Your task to perform on an android device: make emails show in primary in the gmail app Image 0: 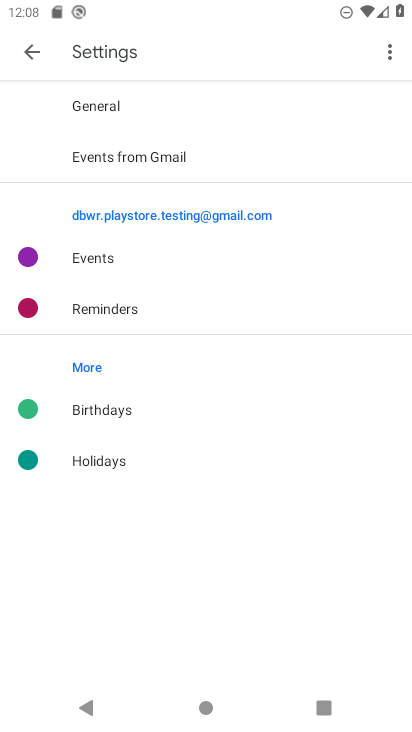
Step 0: press home button
Your task to perform on an android device: make emails show in primary in the gmail app Image 1: 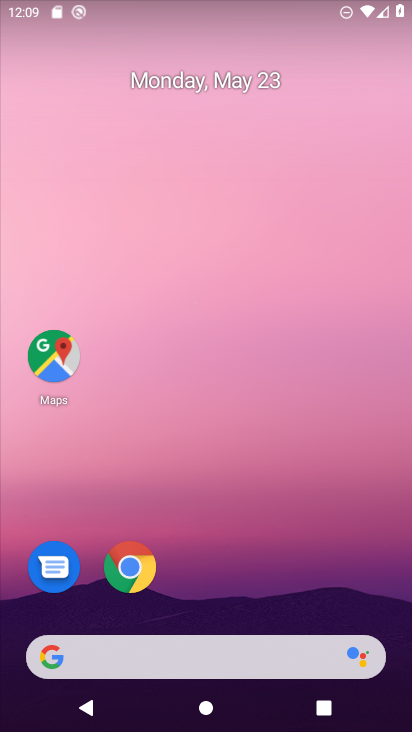
Step 1: drag from (201, 614) to (268, 147)
Your task to perform on an android device: make emails show in primary in the gmail app Image 2: 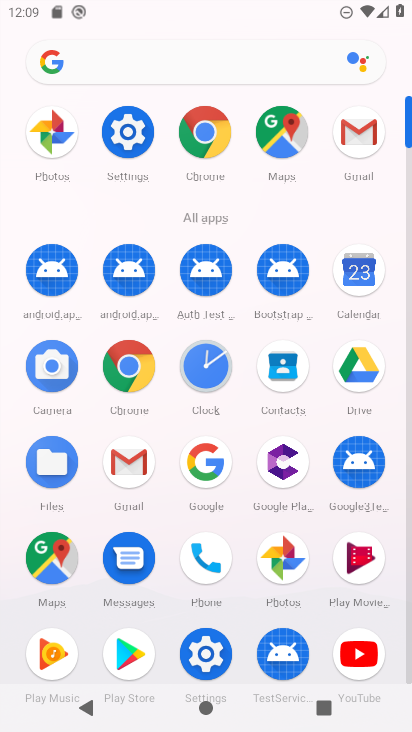
Step 2: click (352, 141)
Your task to perform on an android device: make emails show in primary in the gmail app Image 3: 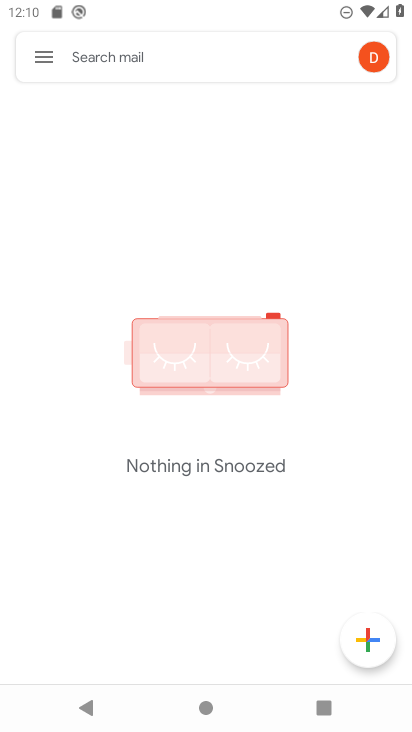
Step 3: click (43, 64)
Your task to perform on an android device: make emails show in primary in the gmail app Image 4: 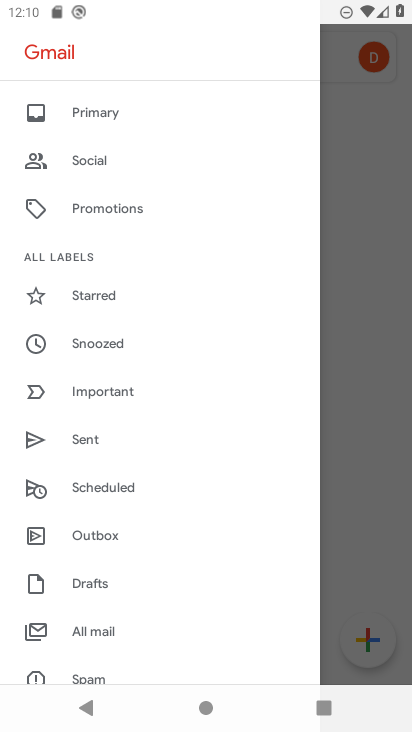
Step 4: click (43, 64)
Your task to perform on an android device: make emails show in primary in the gmail app Image 5: 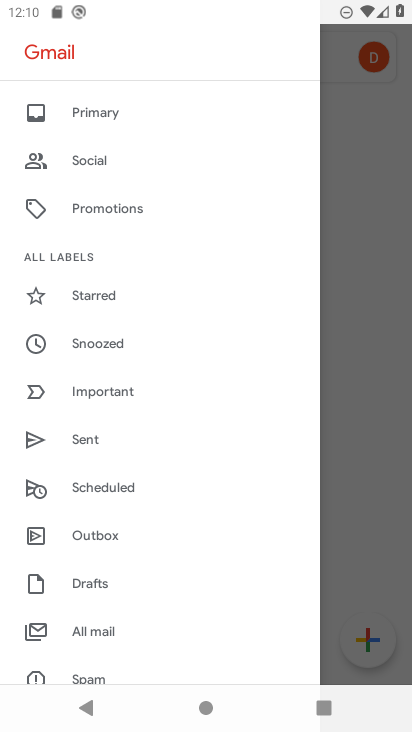
Step 5: click (93, 83)
Your task to perform on an android device: make emails show in primary in the gmail app Image 6: 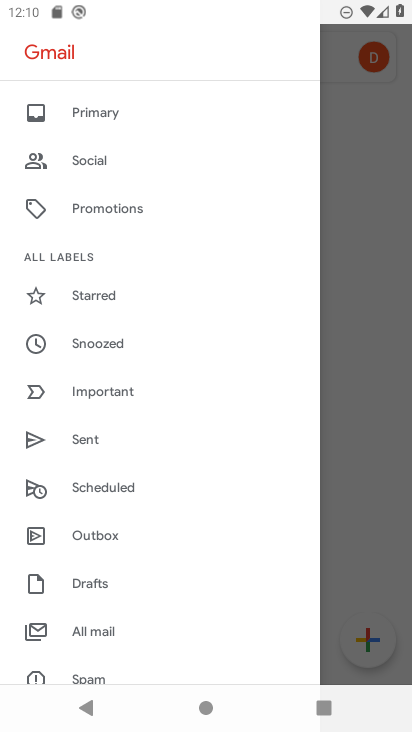
Step 6: click (98, 108)
Your task to perform on an android device: make emails show in primary in the gmail app Image 7: 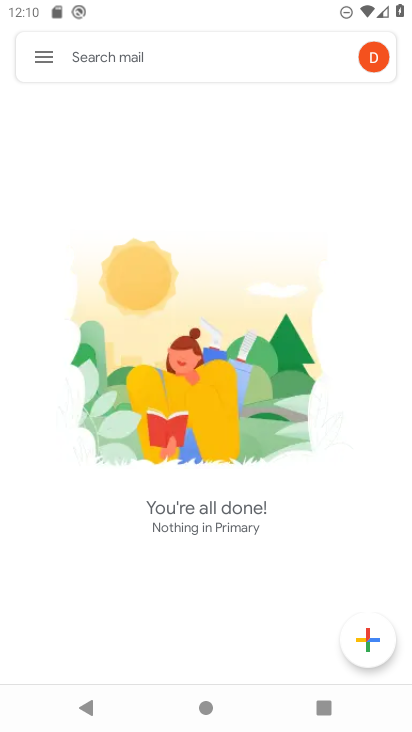
Step 7: task complete